Your task to perform on an android device: turn on sleep mode Image 0: 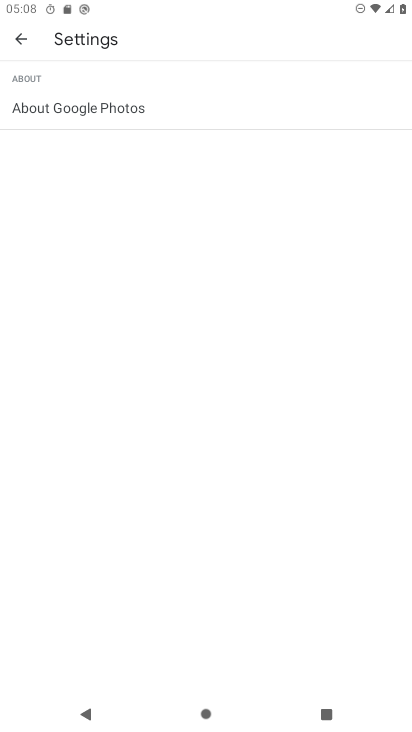
Step 0: press home button
Your task to perform on an android device: turn on sleep mode Image 1: 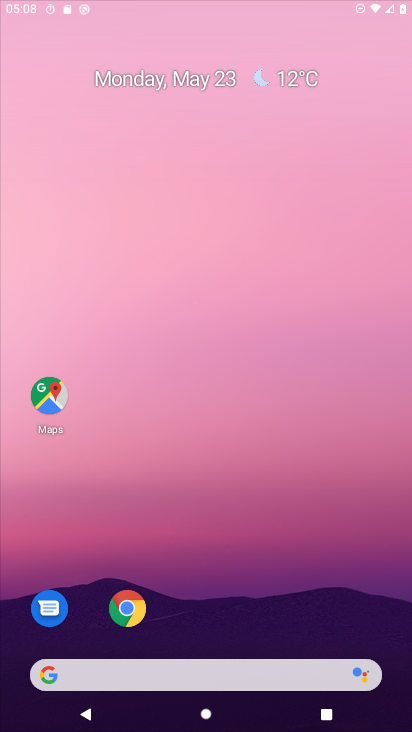
Step 1: drag from (295, 459) to (251, 32)
Your task to perform on an android device: turn on sleep mode Image 2: 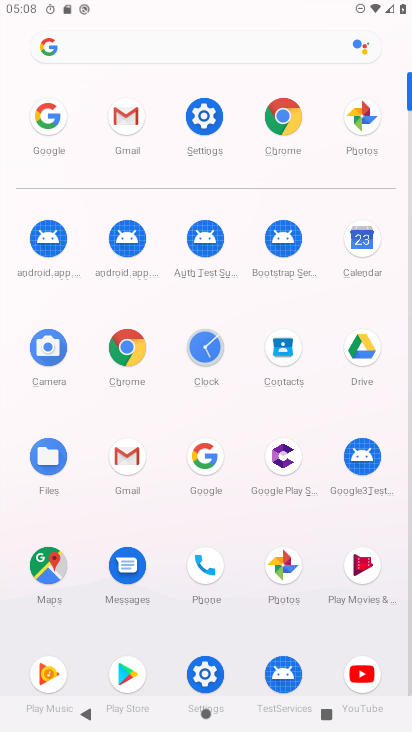
Step 2: click (205, 141)
Your task to perform on an android device: turn on sleep mode Image 3: 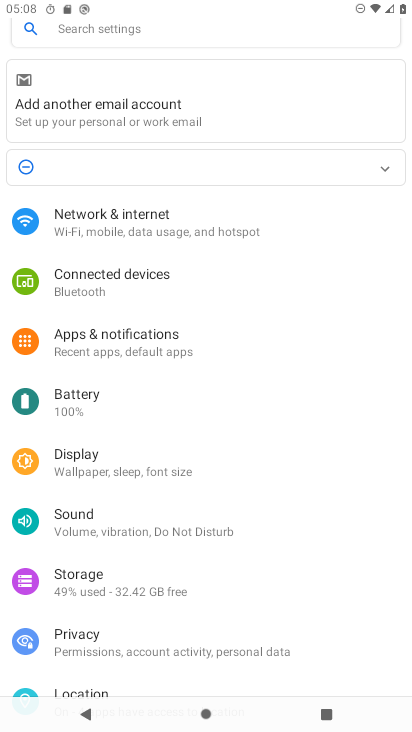
Step 3: click (150, 459)
Your task to perform on an android device: turn on sleep mode Image 4: 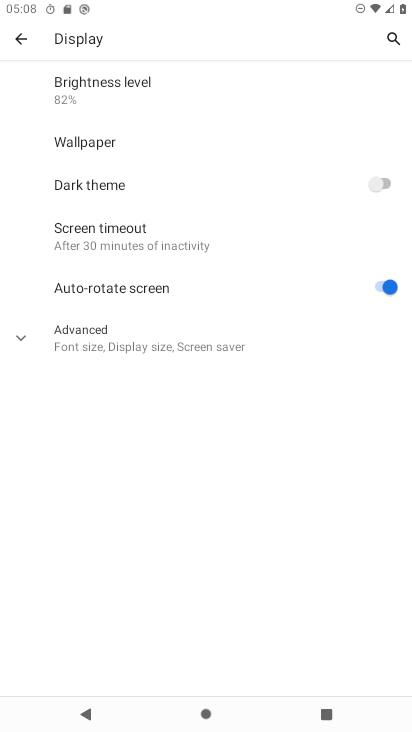
Step 4: task complete